Your task to perform on an android device: Open CNN.com Image 0: 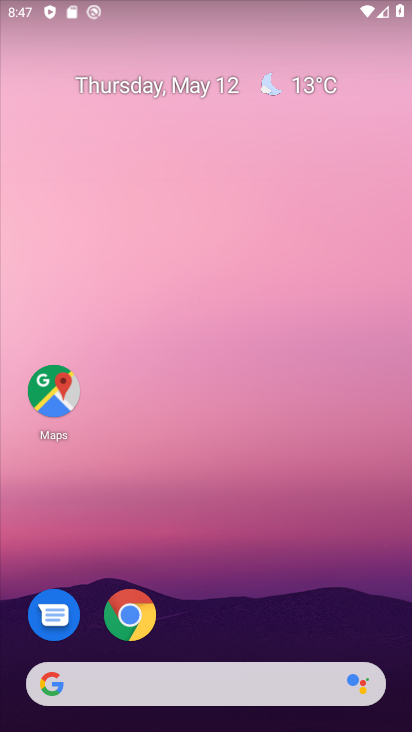
Step 0: click (103, 614)
Your task to perform on an android device: Open CNN.com Image 1: 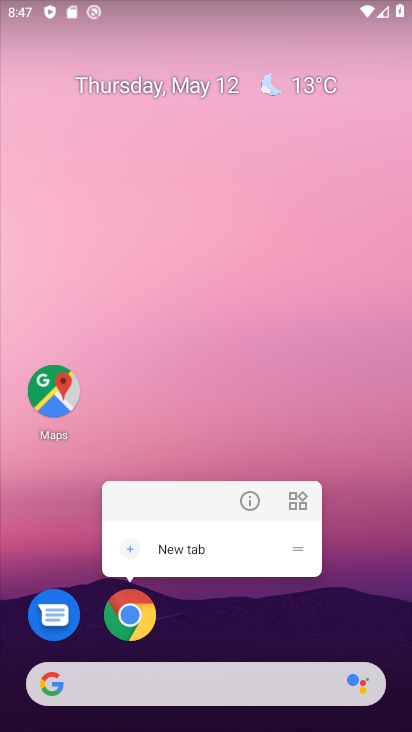
Step 1: click (138, 621)
Your task to perform on an android device: Open CNN.com Image 2: 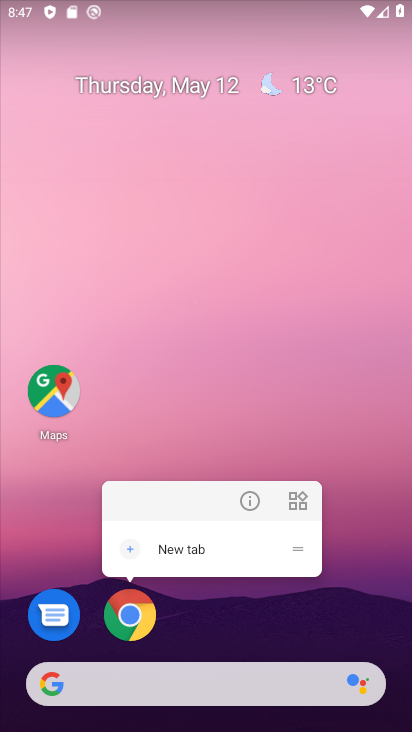
Step 2: click (139, 611)
Your task to perform on an android device: Open CNN.com Image 3: 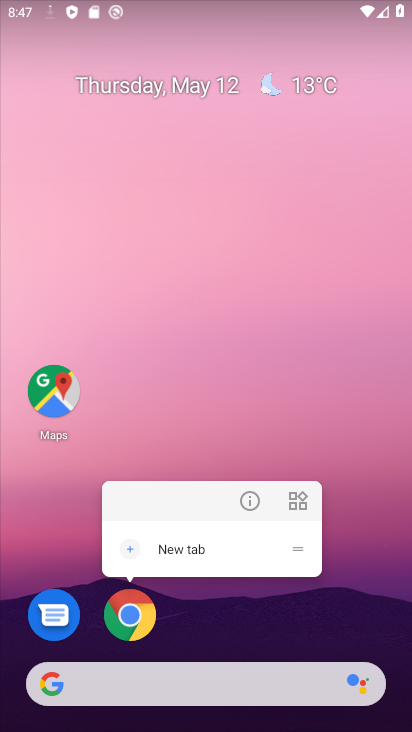
Step 3: click (143, 602)
Your task to perform on an android device: Open CNN.com Image 4: 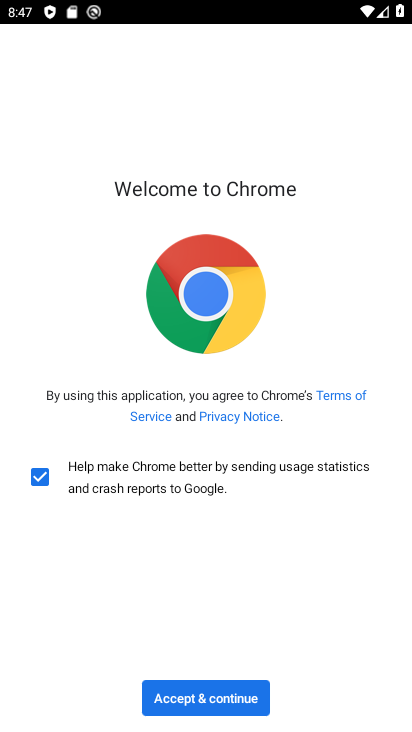
Step 4: click (241, 682)
Your task to perform on an android device: Open CNN.com Image 5: 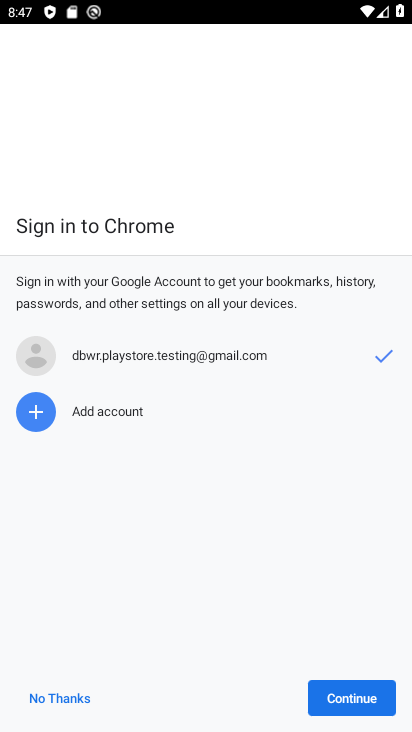
Step 5: click (352, 699)
Your task to perform on an android device: Open CNN.com Image 6: 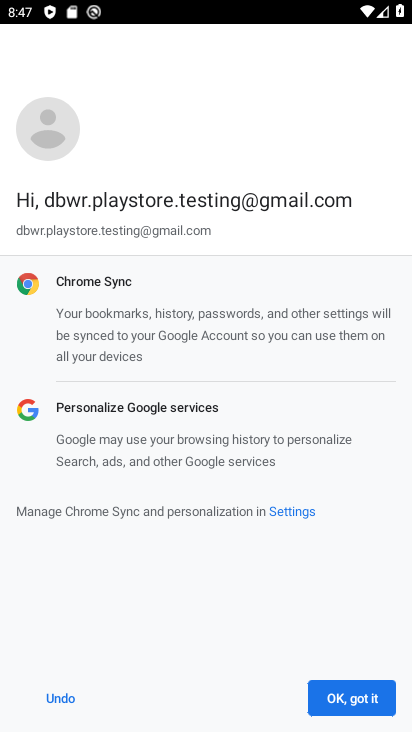
Step 6: click (339, 699)
Your task to perform on an android device: Open CNN.com Image 7: 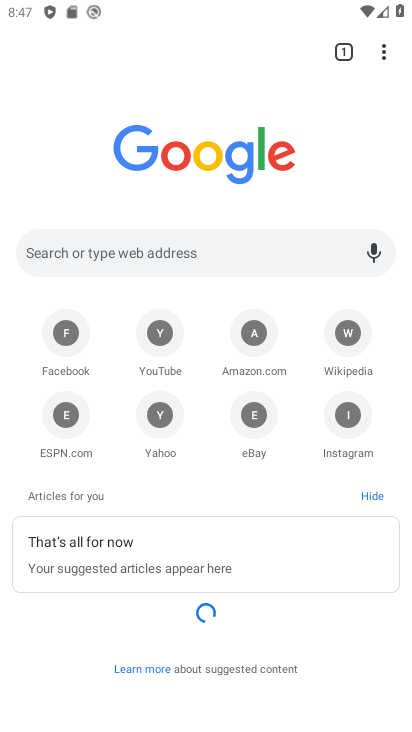
Step 7: click (195, 241)
Your task to perform on an android device: Open CNN.com Image 8: 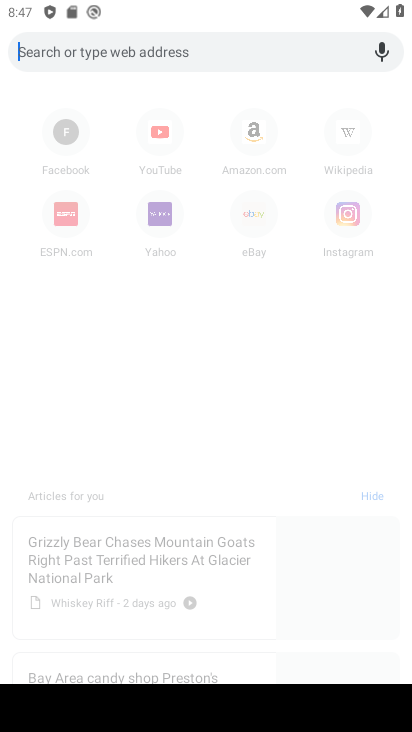
Step 8: type "cnn"
Your task to perform on an android device: Open CNN.com Image 9: 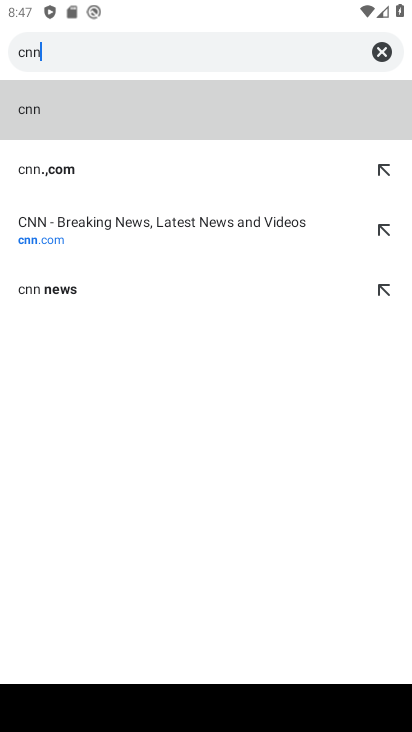
Step 9: click (42, 225)
Your task to perform on an android device: Open CNN.com Image 10: 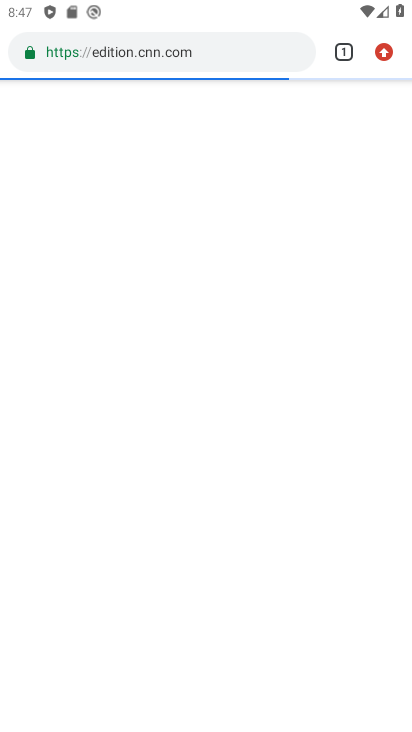
Step 10: task complete